Your task to perform on an android device: clear history in the chrome app Image 0: 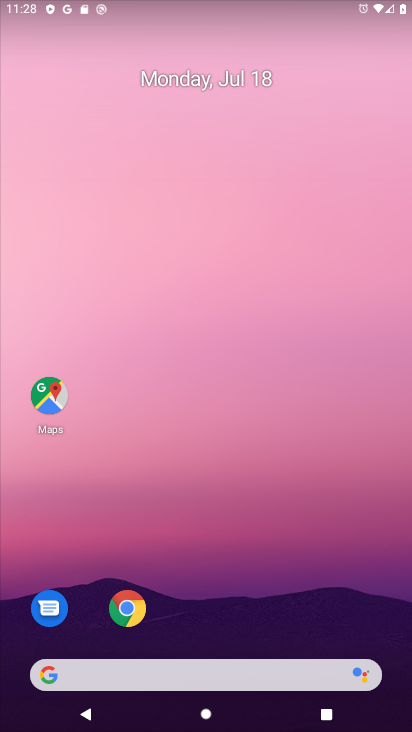
Step 0: click (131, 600)
Your task to perform on an android device: clear history in the chrome app Image 1: 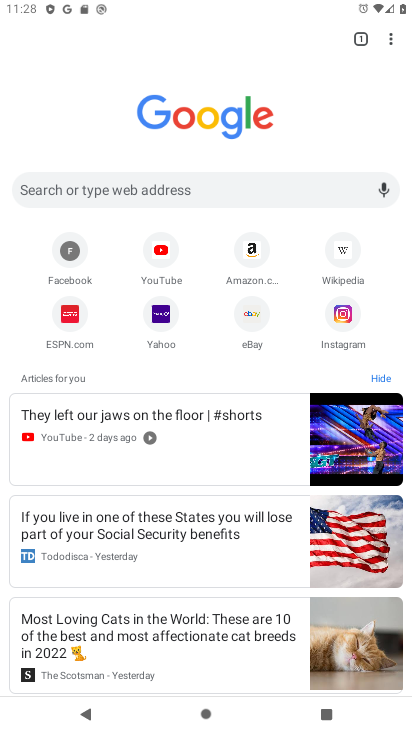
Step 1: click (394, 46)
Your task to perform on an android device: clear history in the chrome app Image 2: 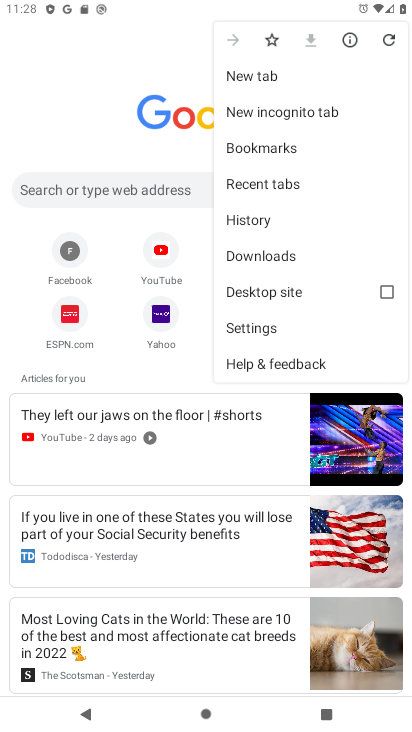
Step 2: click (255, 224)
Your task to perform on an android device: clear history in the chrome app Image 3: 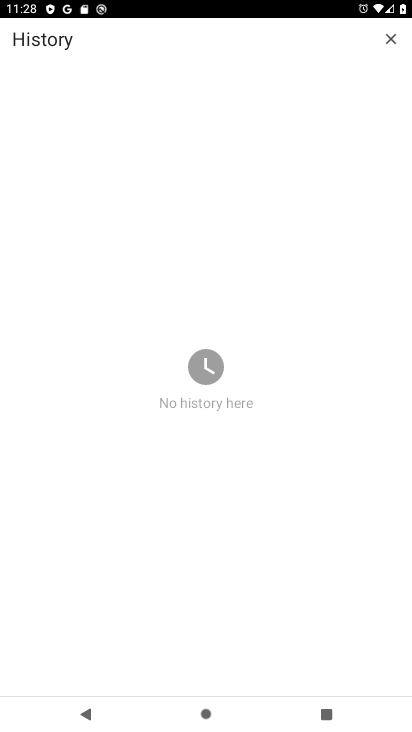
Step 3: task complete